Your task to perform on an android device: Open the stopwatch Image 0: 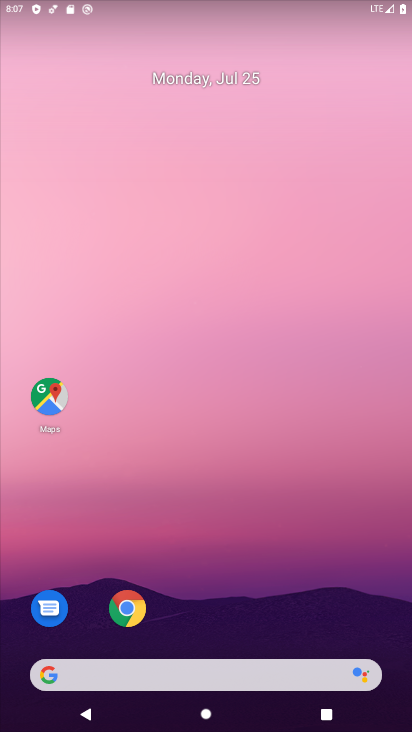
Step 0: drag from (235, 726) to (168, 281)
Your task to perform on an android device: Open the stopwatch Image 1: 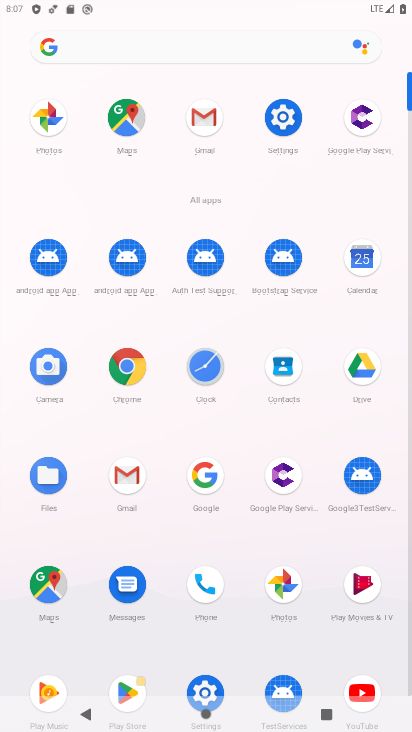
Step 1: click (201, 352)
Your task to perform on an android device: Open the stopwatch Image 2: 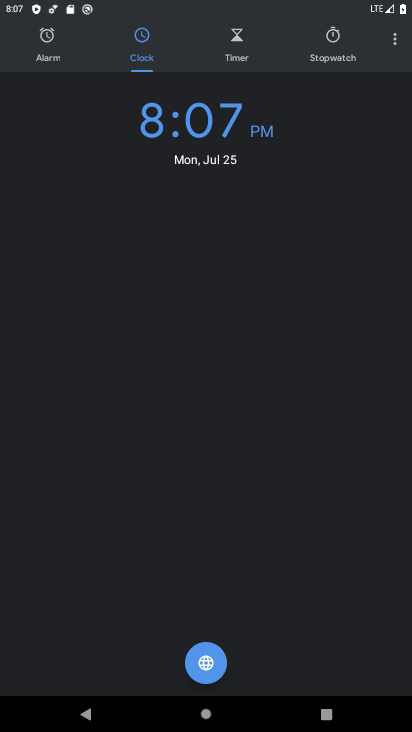
Step 2: click (328, 37)
Your task to perform on an android device: Open the stopwatch Image 3: 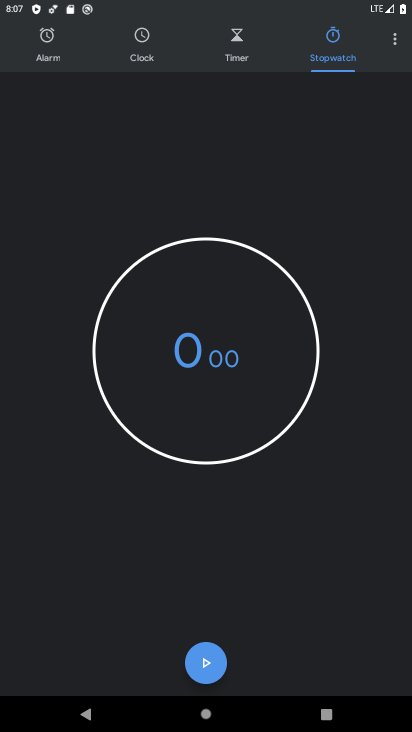
Step 3: task complete